Your task to perform on an android device: check data usage Image 0: 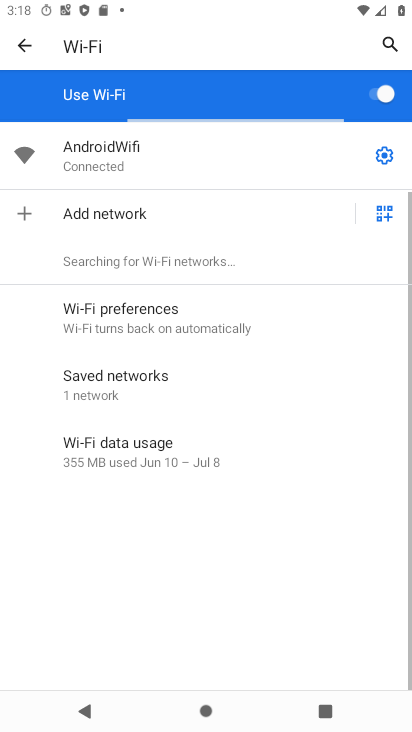
Step 0: press home button
Your task to perform on an android device: check data usage Image 1: 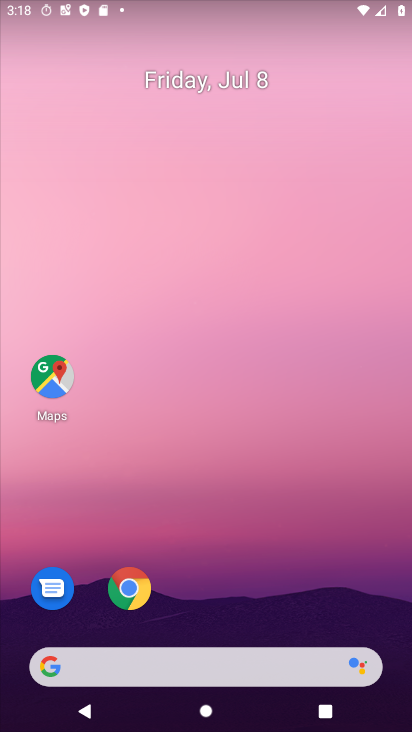
Step 1: drag from (236, 616) to (239, 194)
Your task to perform on an android device: check data usage Image 2: 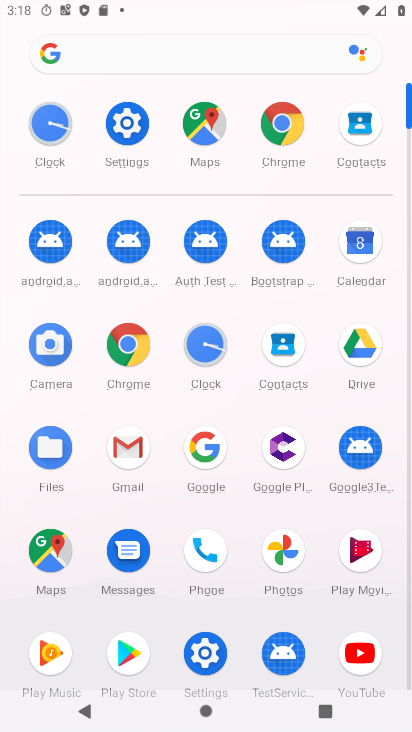
Step 2: click (210, 663)
Your task to perform on an android device: check data usage Image 3: 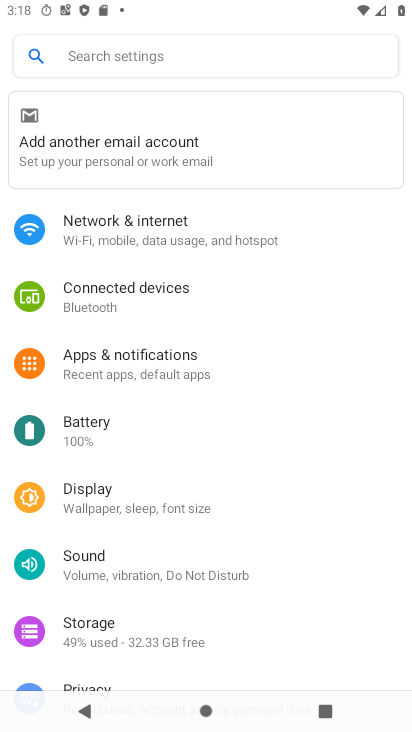
Step 3: click (150, 236)
Your task to perform on an android device: check data usage Image 4: 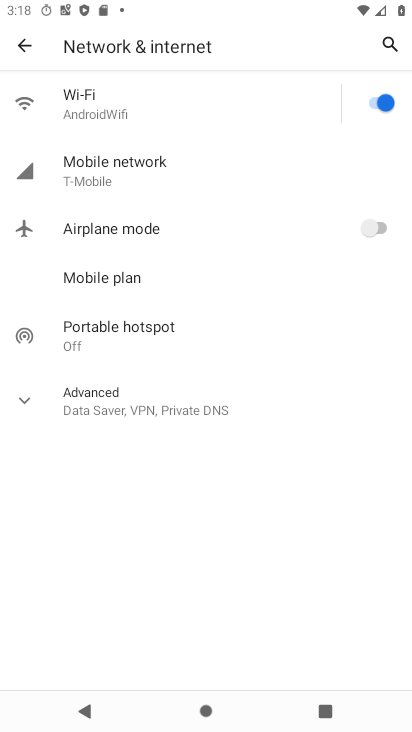
Step 4: click (109, 166)
Your task to perform on an android device: check data usage Image 5: 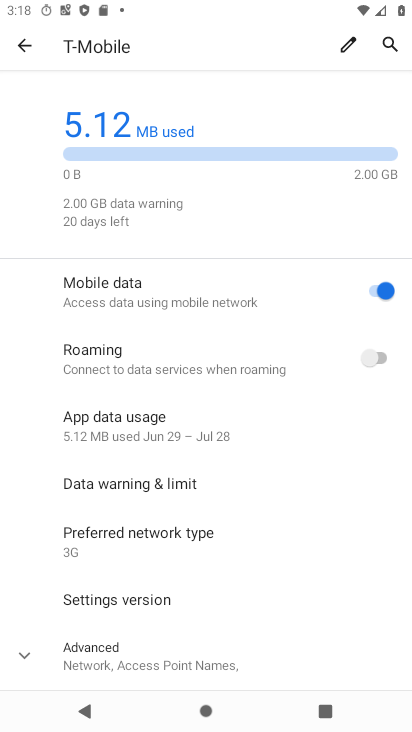
Step 5: click (111, 432)
Your task to perform on an android device: check data usage Image 6: 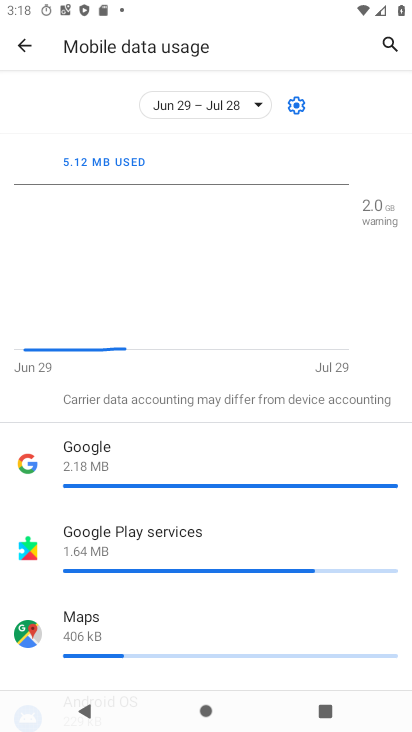
Step 6: task complete